Your task to perform on an android device: open the mobile data screen to see how much data has been used Image 0: 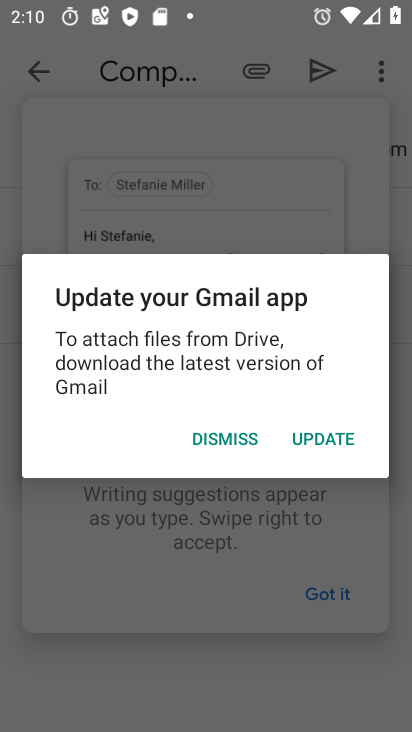
Step 0: press home button
Your task to perform on an android device: open the mobile data screen to see how much data has been used Image 1: 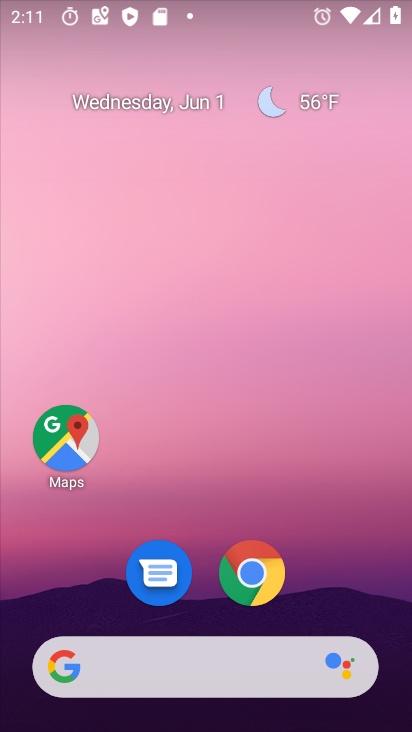
Step 1: drag from (339, 481) to (238, 2)
Your task to perform on an android device: open the mobile data screen to see how much data has been used Image 2: 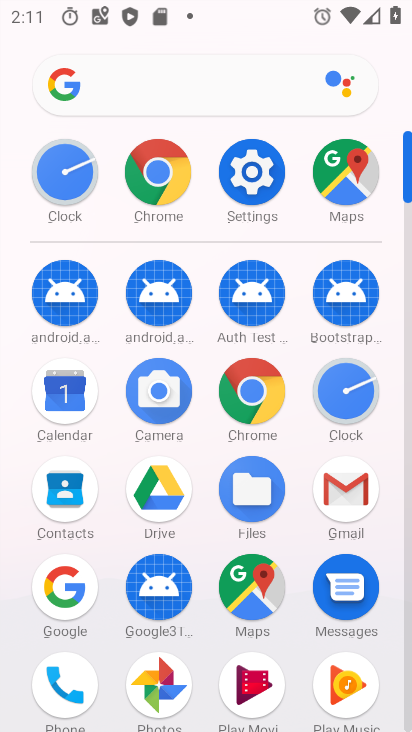
Step 2: click (236, 182)
Your task to perform on an android device: open the mobile data screen to see how much data has been used Image 3: 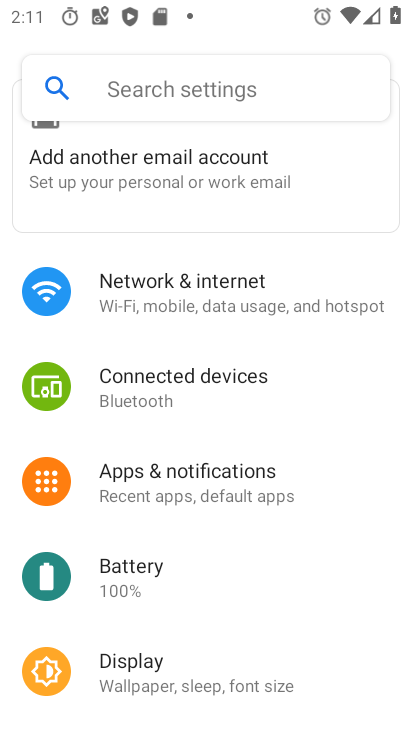
Step 3: click (154, 296)
Your task to perform on an android device: open the mobile data screen to see how much data has been used Image 4: 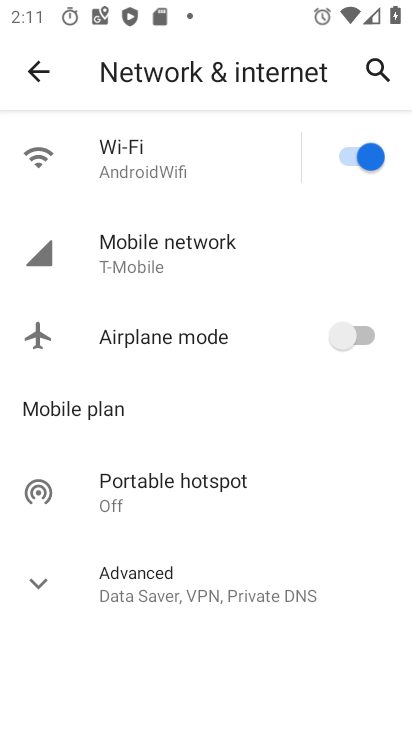
Step 4: click (120, 269)
Your task to perform on an android device: open the mobile data screen to see how much data has been used Image 5: 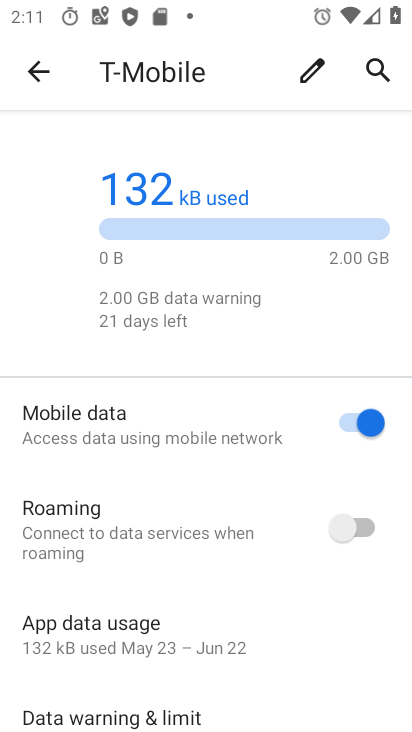
Step 5: task complete